Your task to perform on an android device: turn off notifications in google photos Image 0: 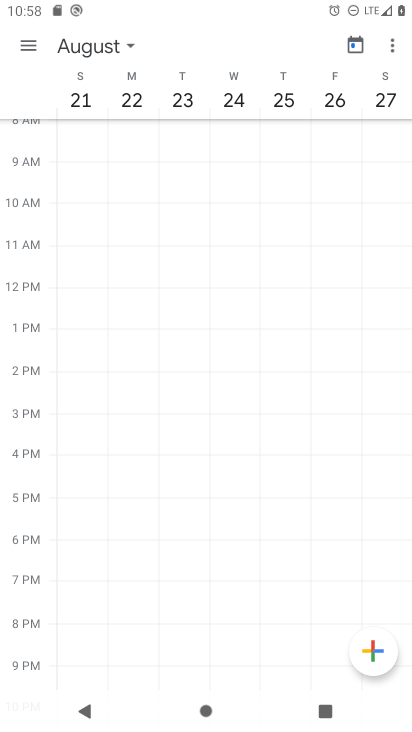
Step 0: press home button
Your task to perform on an android device: turn off notifications in google photos Image 1: 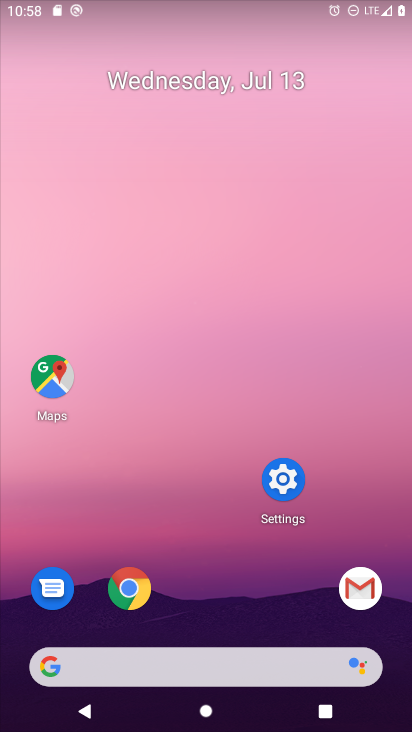
Step 1: drag from (289, 689) to (95, 11)
Your task to perform on an android device: turn off notifications in google photos Image 2: 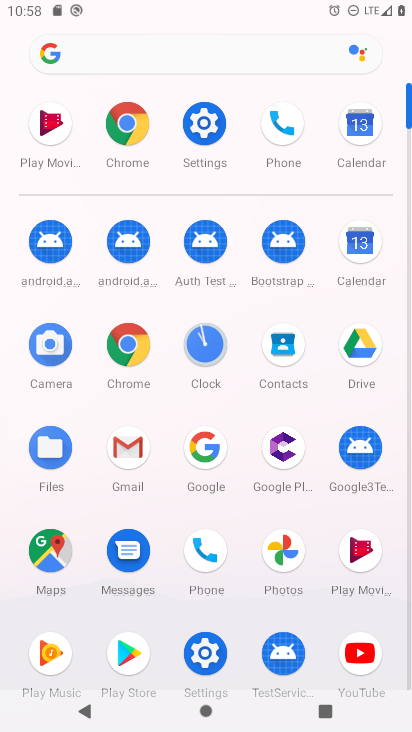
Step 2: click (279, 550)
Your task to perform on an android device: turn off notifications in google photos Image 3: 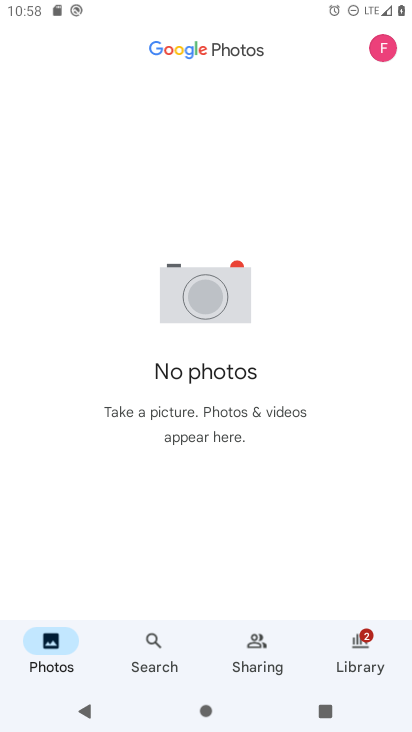
Step 3: click (374, 48)
Your task to perform on an android device: turn off notifications in google photos Image 4: 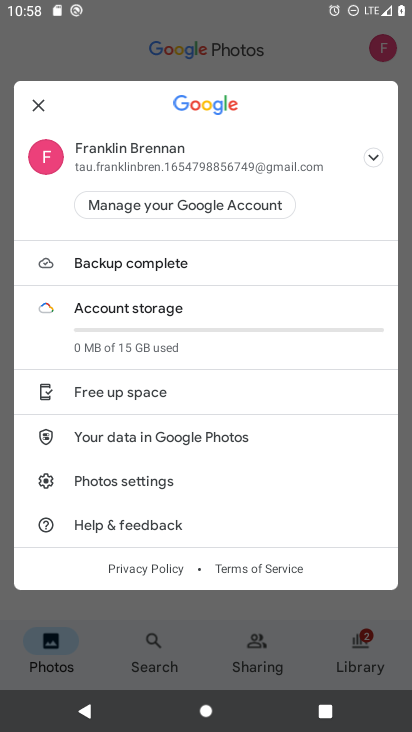
Step 4: click (141, 476)
Your task to perform on an android device: turn off notifications in google photos Image 5: 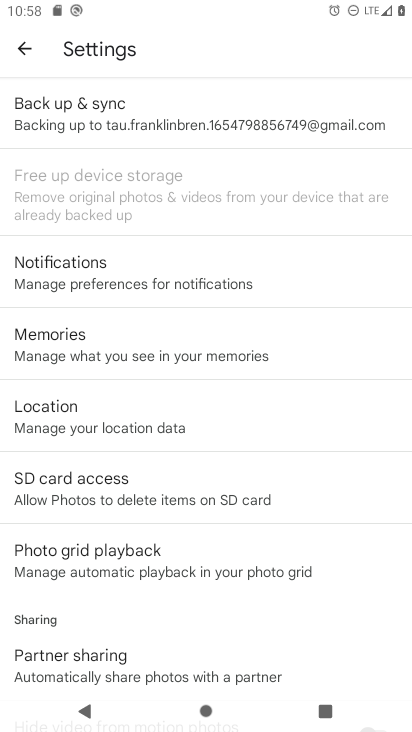
Step 5: click (67, 268)
Your task to perform on an android device: turn off notifications in google photos Image 6: 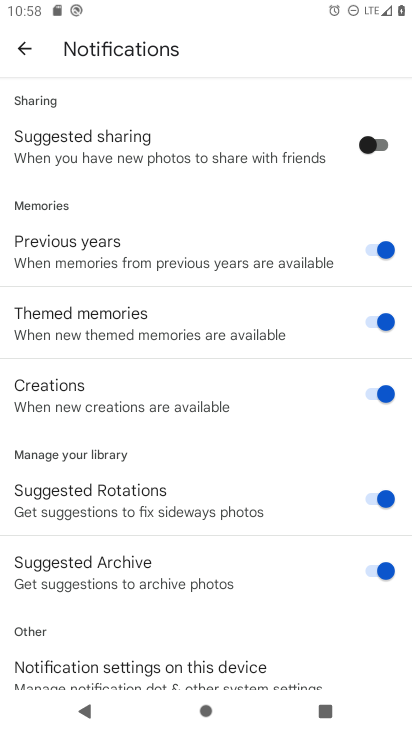
Step 6: drag from (147, 637) to (169, 444)
Your task to perform on an android device: turn off notifications in google photos Image 7: 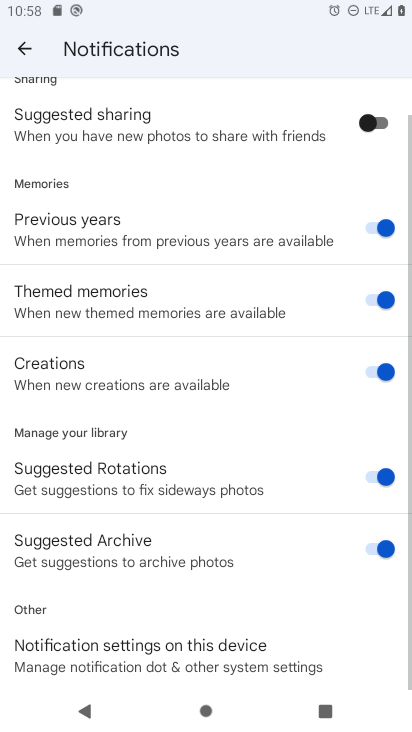
Step 7: click (186, 645)
Your task to perform on an android device: turn off notifications in google photos Image 8: 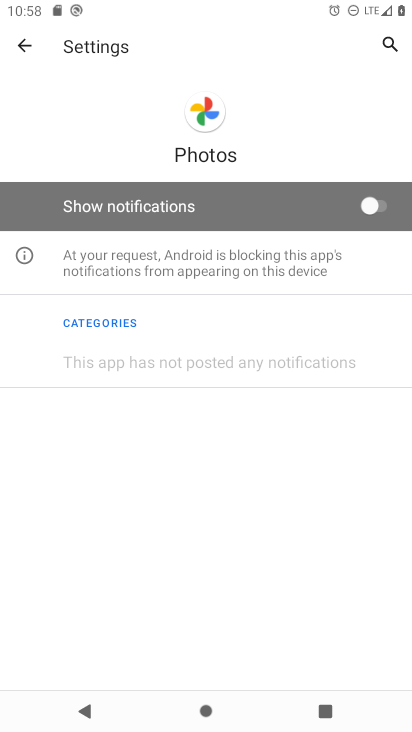
Step 8: click (368, 194)
Your task to perform on an android device: turn off notifications in google photos Image 9: 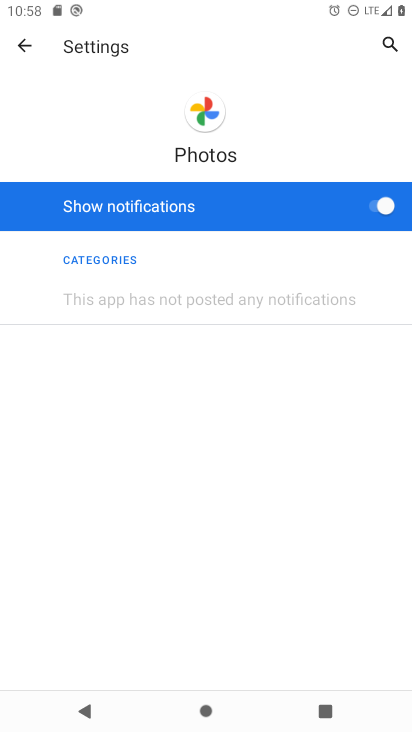
Step 9: click (363, 208)
Your task to perform on an android device: turn off notifications in google photos Image 10: 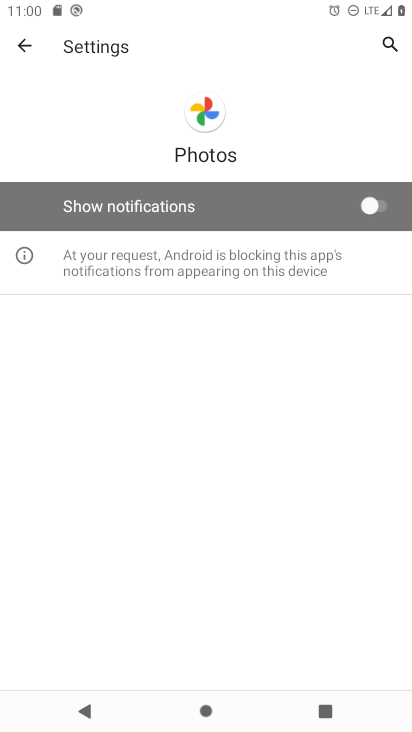
Step 10: task complete